Your task to perform on an android device: turn on location history Image 0: 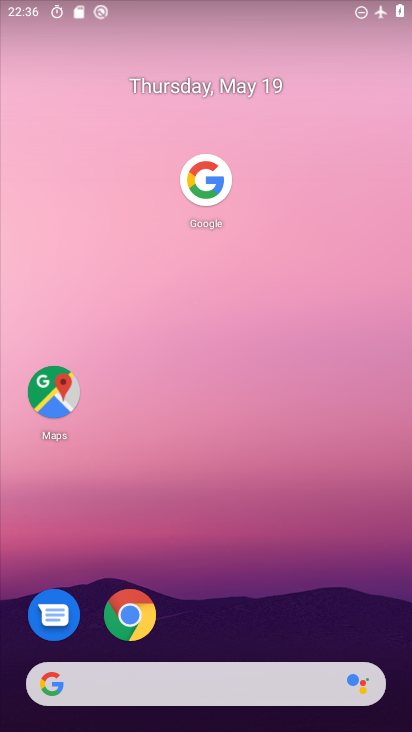
Step 0: drag from (250, 593) to (263, 69)
Your task to perform on an android device: turn on location history Image 1: 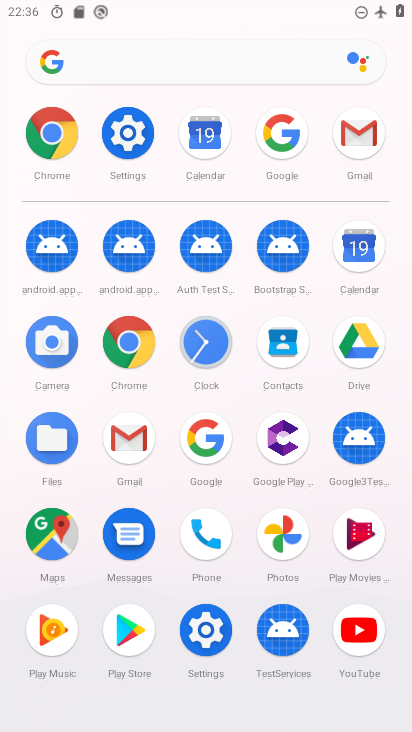
Step 1: click (211, 635)
Your task to perform on an android device: turn on location history Image 2: 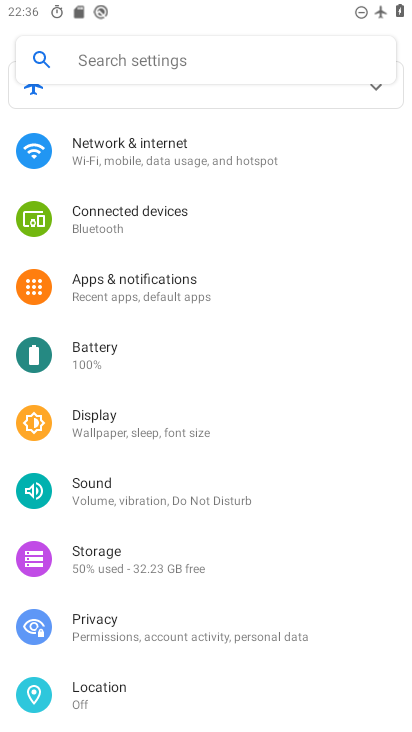
Step 2: drag from (218, 617) to (237, 250)
Your task to perform on an android device: turn on location history Image 3: 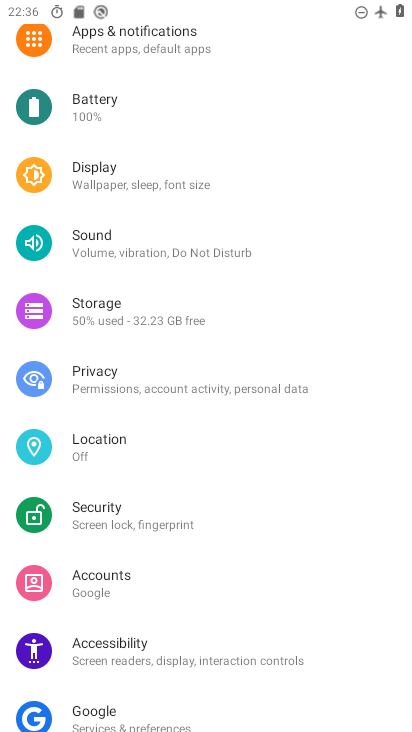
Step 3: click (124, 456)
Your task to perform on an android device: turn on location history Image 4: 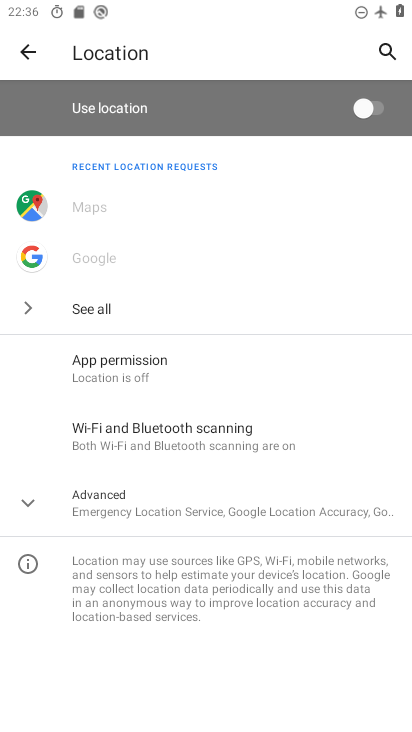
Step 4: click (130, 508)
Your task to perform on an android device: turn on location history Image 5: 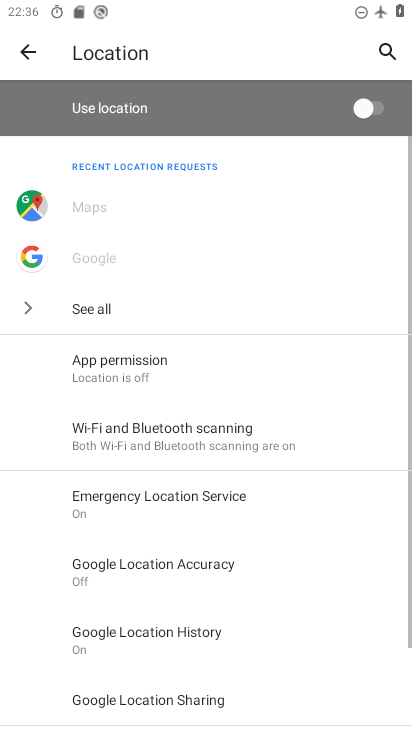
Step 5: drag from (256, 553) to (255, 366)
Your task to perform on an android device: turn on location history Image 6: 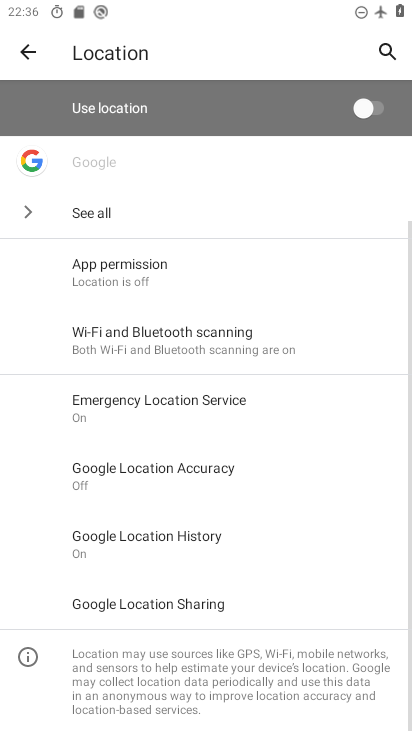
Step 6: click (167, 538)
Your task to perform on an android device: turn on location history Image 7: 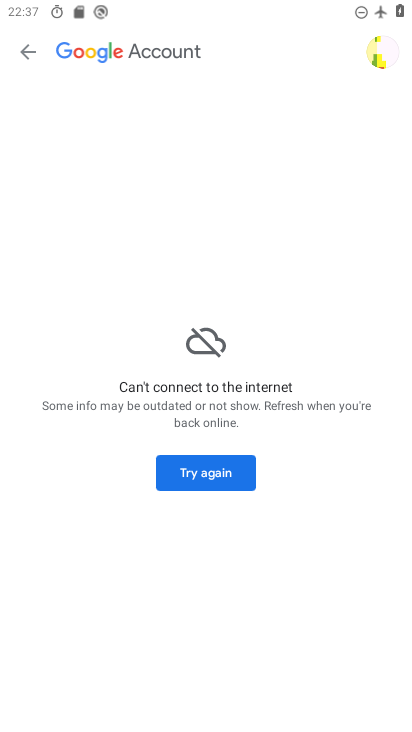
Step 7: task complete